Your task to perform on an android device: turn on priority inbox in the gmail app Image 0: 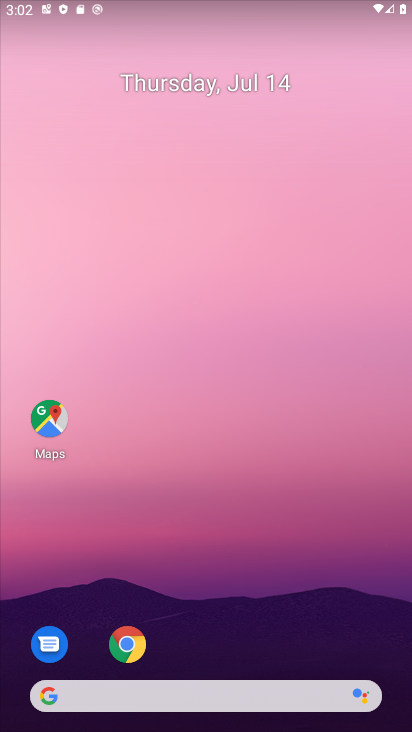
Step 0: drag from (176, 654) to (226, 200)
Your task to perform on an android device: turn on priority inbox in the gmail app Image 1: 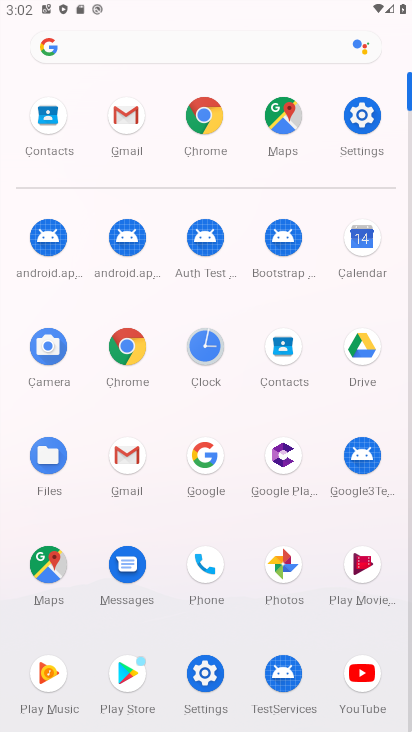
Step 1: click (132, 455)
Your task to perform on an android device: turn on priority inbox in the gmail app Image 2: 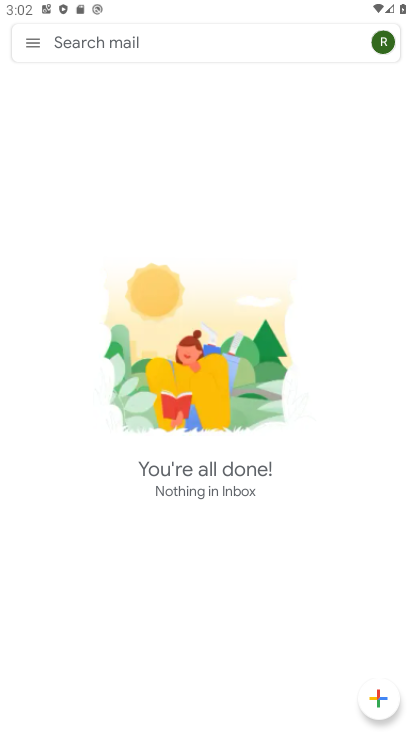
Step 2: drag from (216, 550) to (219, 456)
Your task to perform on an android device: turn on priority inbox in the gmail app Image 3: 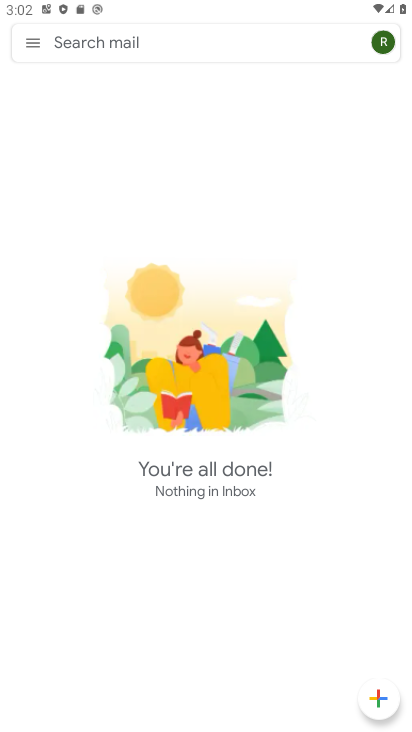
Step 3: click (32, 40)
Your task to perform on an android device: turn on priority inbox in the gmail app Image 4: 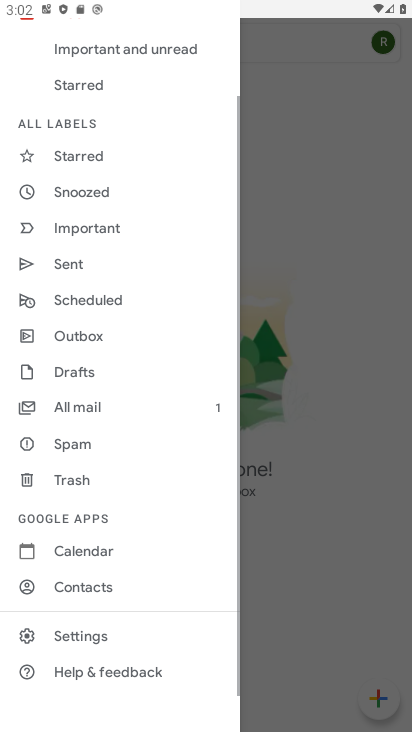
Step 4: drag from (89, 570) to (107, 205)
Your task to perform on an android device: turn on priority inbox in the gmail app Image 5: 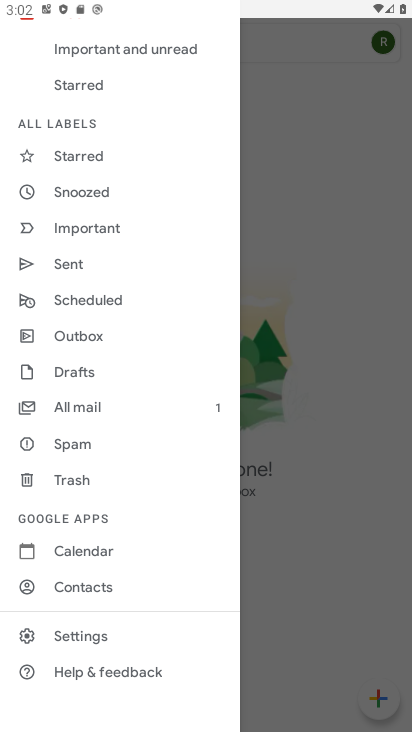
Step 5: click (85, 630)
Your task to perform on an android device: turn on priority inbox in the gmail app Image 6: 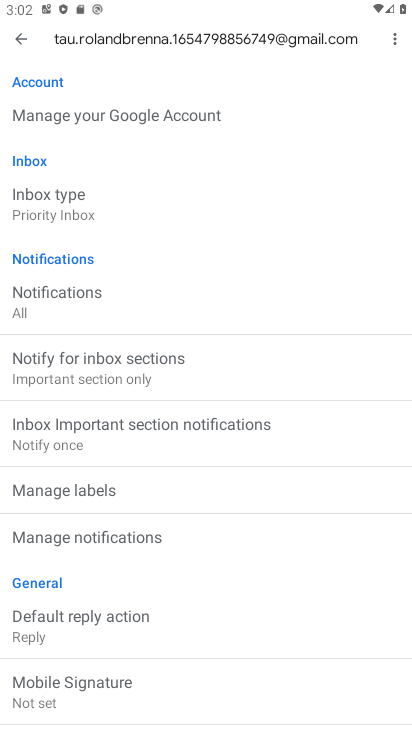
Step 6: drag from (219, 497) to (238, 361)
Your task to perform on an android device: turn on priority inbox in the gmail app Image 7: 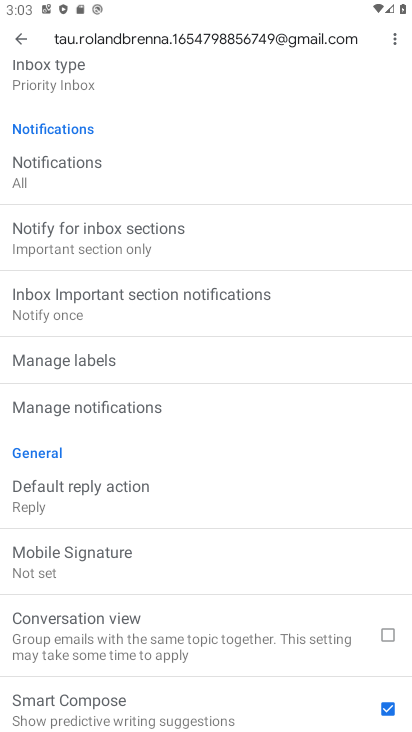
Step 7: drag from (290, 131) to (272, 652)
Your task to perform on an android device: turn on priority inbox in the gmail app Image 8: 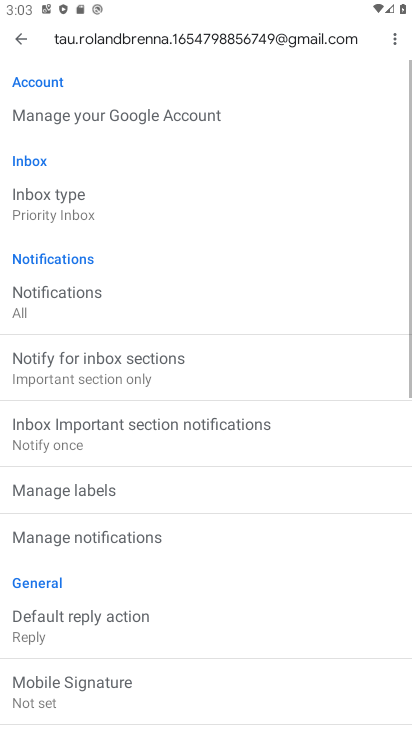
Step 8: click (80, 196)
Your task to perform on an android device: turn on priority inbox in the gmail app Image 9: 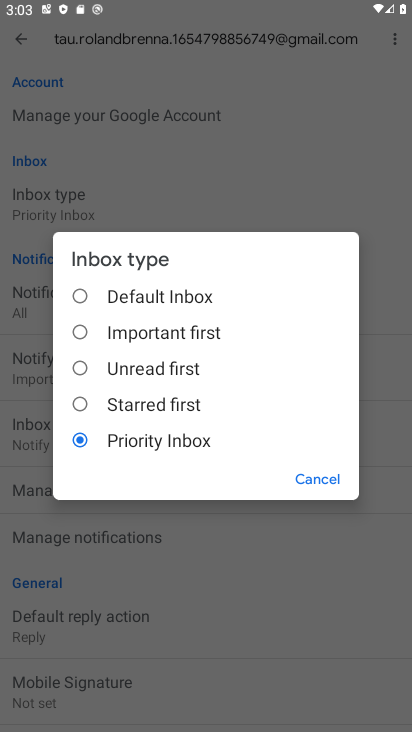
Step 9: task complete